Your task to perform on an android device: Toggle the flashlight Image 0: 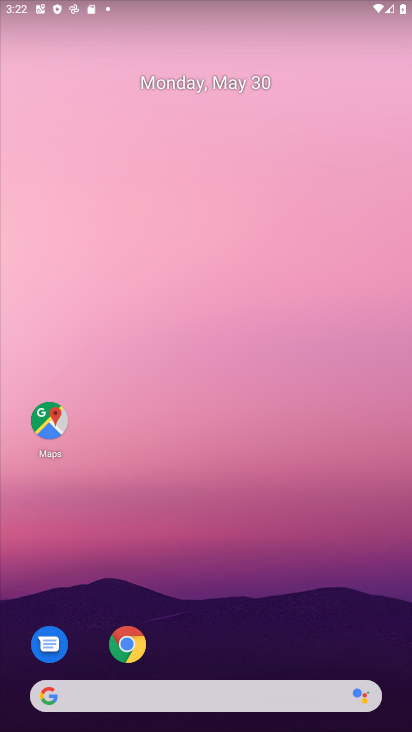
Step 0: drag from (308, 661) to (304, 35)
Your task to perform on an android device: Toggle the flashlight Image 1: 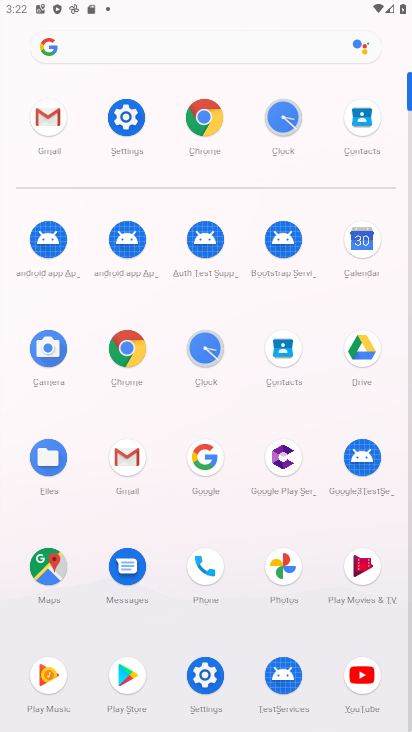
Step 1: click (135, 130)
Your task to perform on an android device: Toggle the flashlight Image 2: 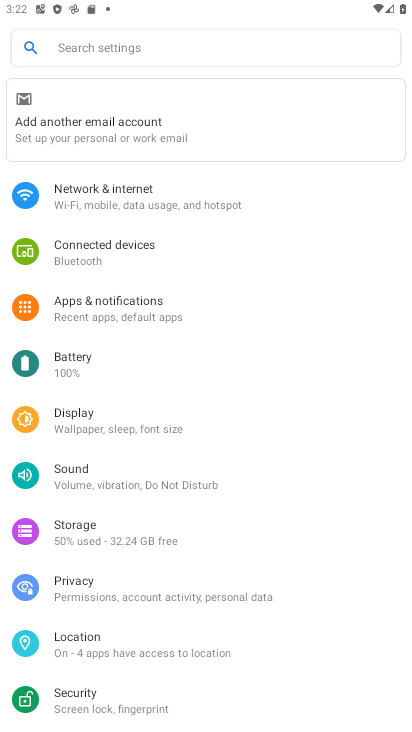
Step 2: task complete